Your task to perform on an android device: Search for seafood restaurants on Google Maps Image 0: 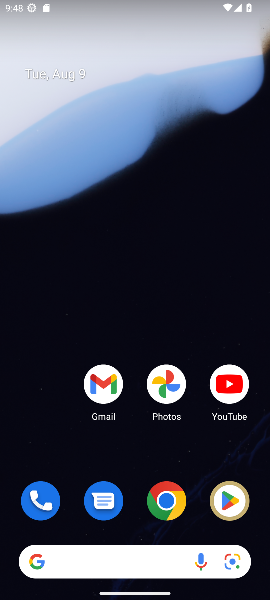
Step 0: drag from (126, 514) to (131, 193)
Your task to perform on an android device: Search for seafood restaurants on Google Maps Image 1: 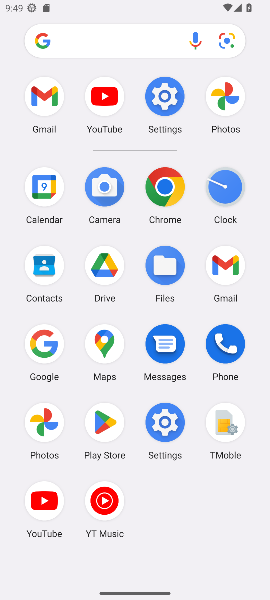
Step 1: click (110, 353)
Your task to perform on an android device: Search for seafood restaurants on Google Maps Image 2: 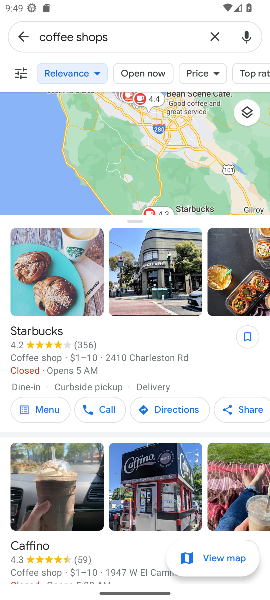
Step 2: click (22, 41)
Your task to perform on an android device: Search for seafood restaurants on Google Maps Image 3: 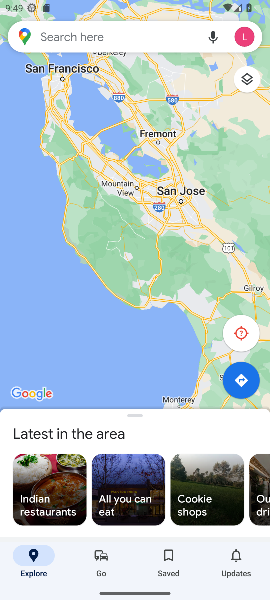
Step 3: click (53, 41)
Your task to perform on an android device: Search for seafood restaurants on Google Maps Image 4: 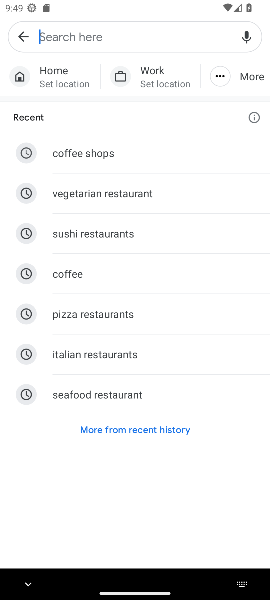
Step 4: click (23, 35)
Your task to perform on an android device: Search for seafood restaurants on Google Maps Image 5: 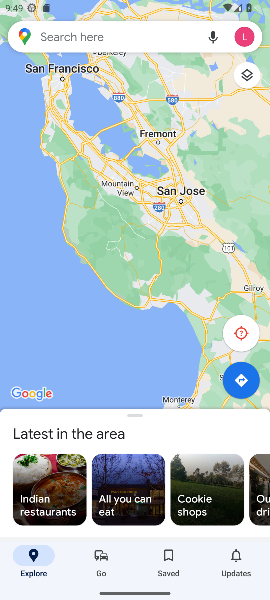
Step 5: click (86, 37)
Your task to perform on an android device: Search for seafood restaurants on Google Maps Image 6: 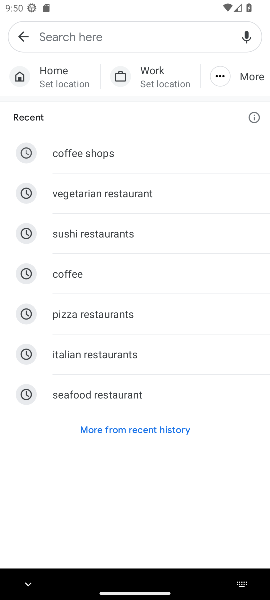
Step 6: click (94, 397)
Your task to perform on an android device: Search for seafood restaurants on Google Maps Image 7: 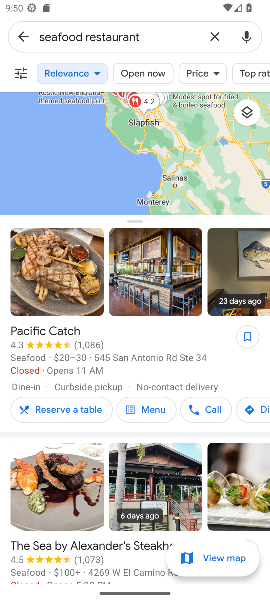
Step 7: task complete